Your task to perform on an android device: Open calendar and show me the third week of next month Image 0: 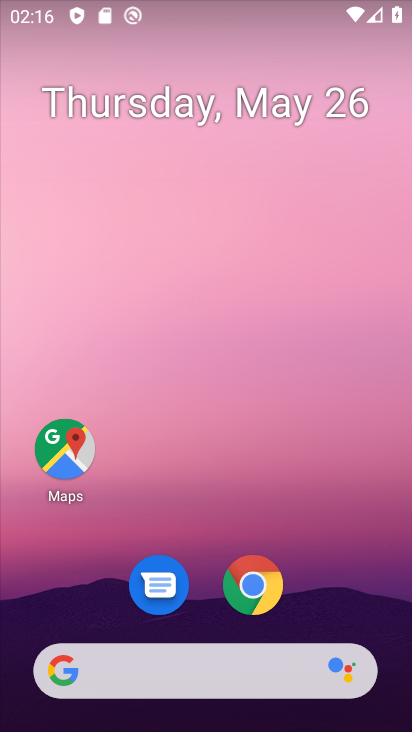
Step 0: drag from (226, 519) to (267, 72)
Your task to perform on an android device: Open calendar and show me the third week of next month Image 1: 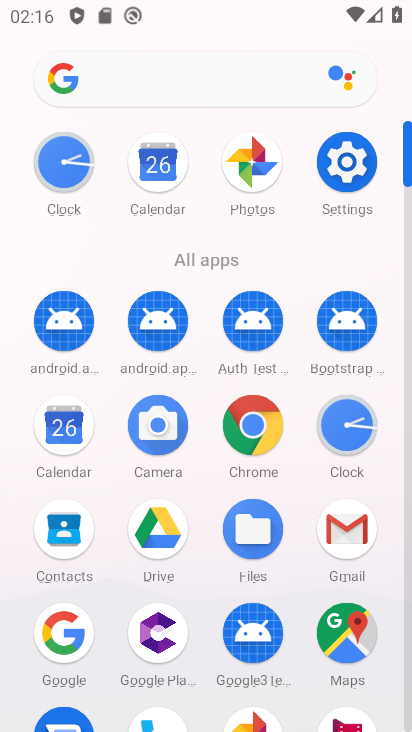
Step 1: click (168, 161)
Your task to perform on an android device: Open calendar and show me the third week of next month Image 2: 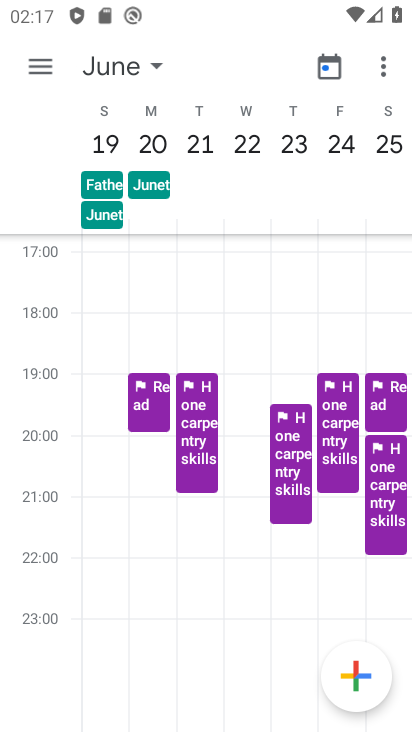
Step 2: task complete